Your task to perform on an android device: change the upload size in google photos Image 0: 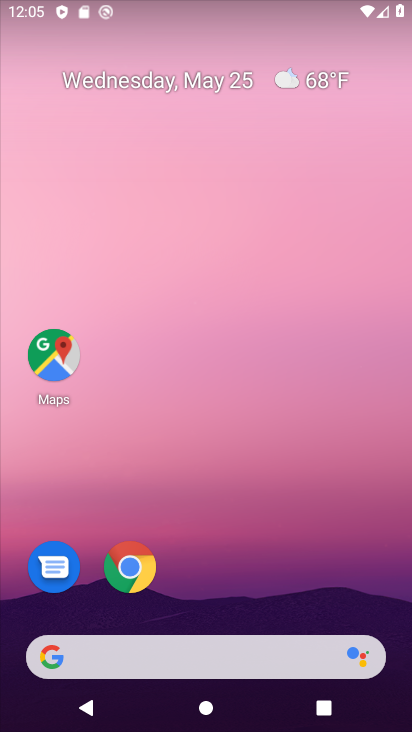
Step 0: drag from (137, 620) to (205, 234)
Your task to perform on an android device: change the upload size in google photos Image 1: 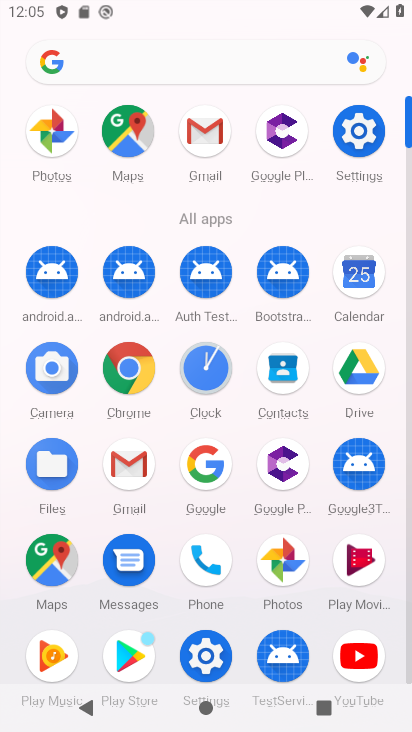
Step 1: click (276, 561)
Your task to perform on an android device: change the upload size in google photos Image 2: 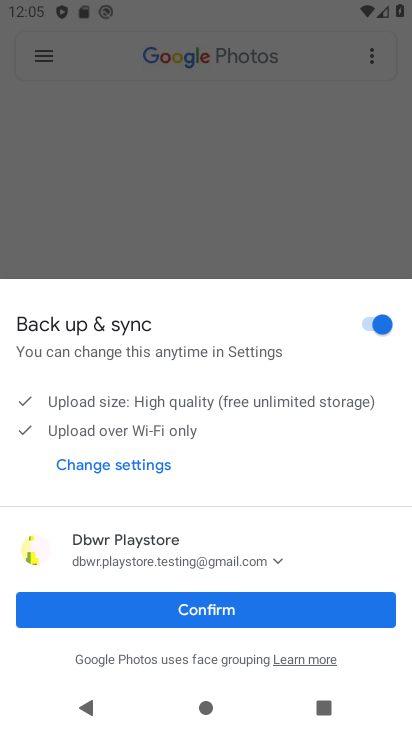
Step 2: click (246, 613)
Your task to perform on an android device: change the upload size in google photos Image 3: 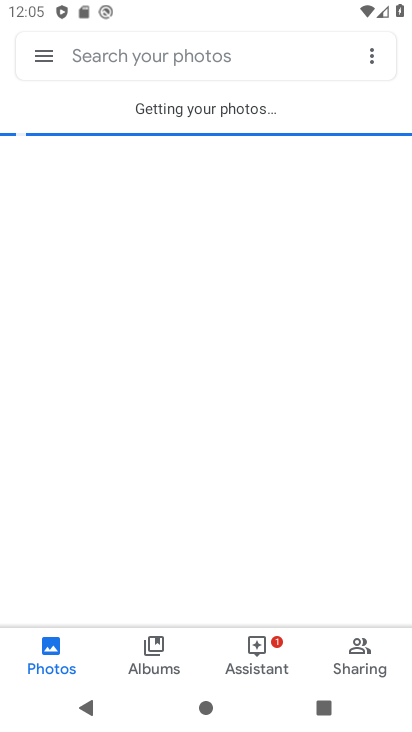
Step 3: click (54, 64)
Your task to perform on an android device: change the upload size in google photos Image 4: 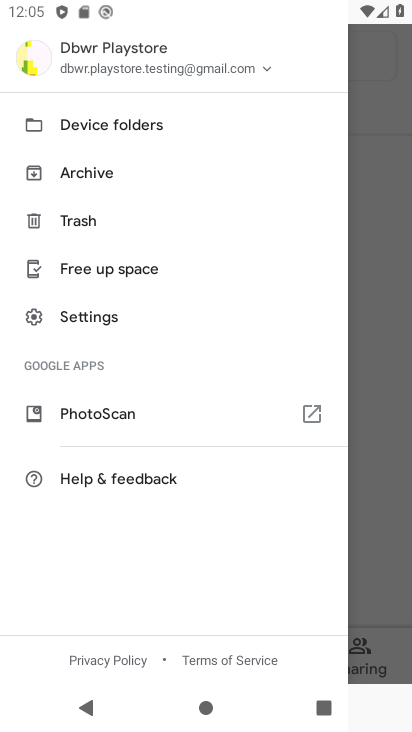
Step 4: click (133, 315)
Your task to perform on an android device: change the upload size in google photos Image 5: 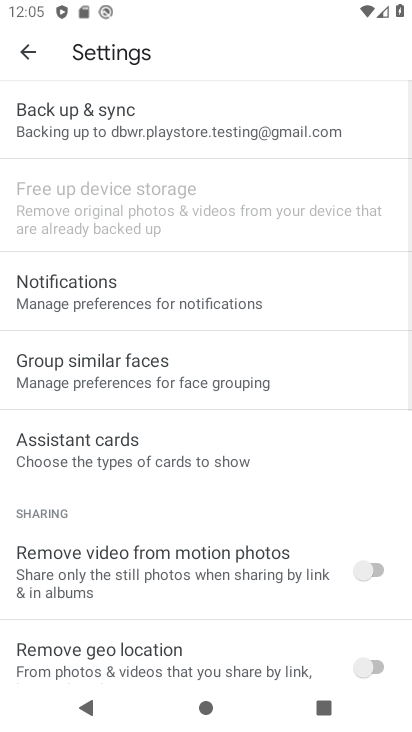
Step 5: click (163, 113)
Your task to perform on an android device: change the upload size in google photos Image 6: 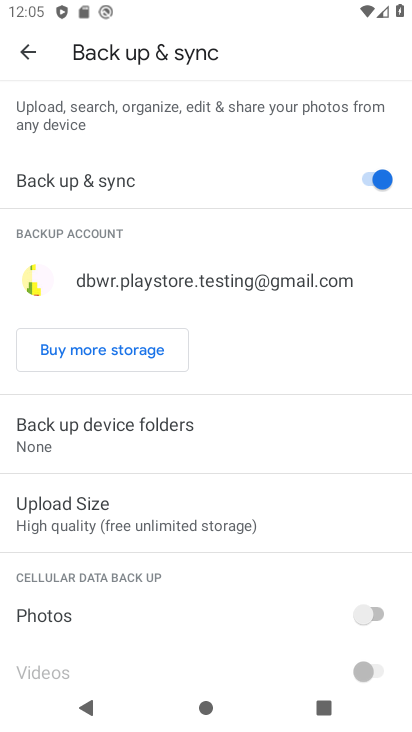
Step 6: click (188, 537)
Your task to perform on an android device: change the upload size in google photos Image 7: 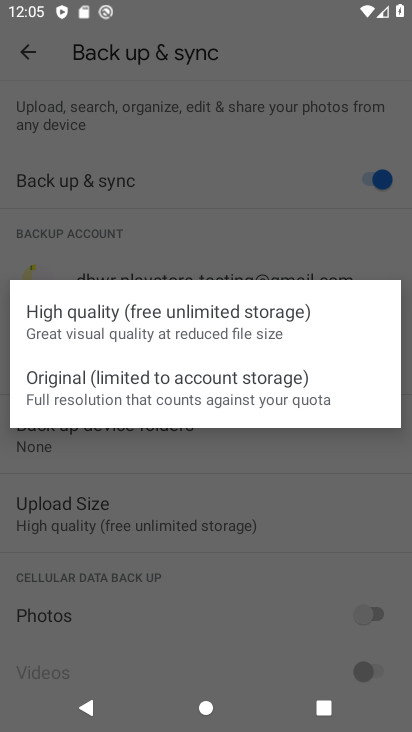
Step 7: click (206, 412)
Your task to perform on an android device: change the upload size in google photos Image 8: 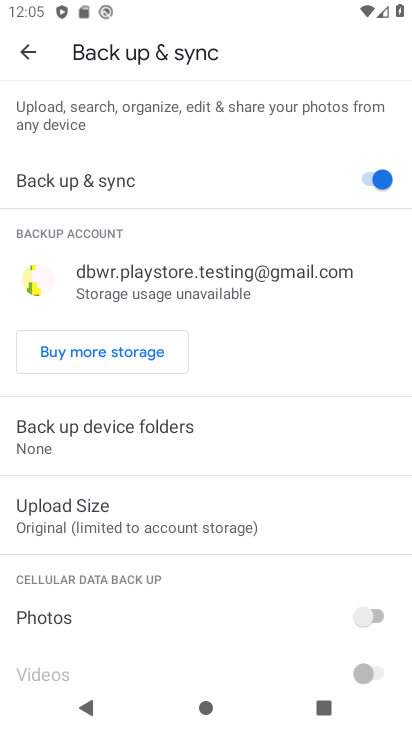
Step 8: task complete